Your task to perform on an android device: toggle improve location accuracy Image 0: 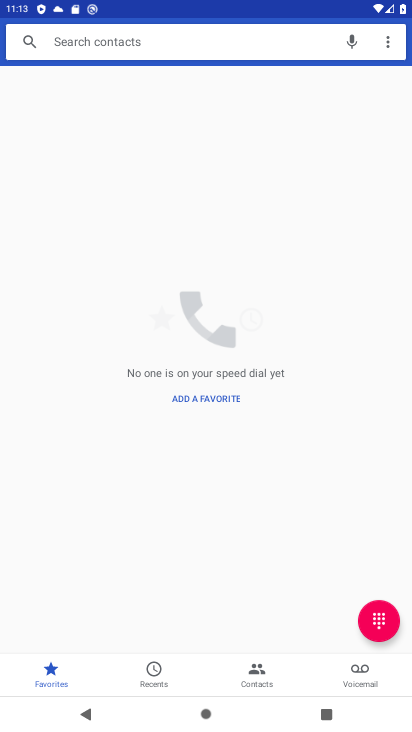
Step 0: press home button
Your task to perform on an android device: toggle improve location accuracy Image 1: 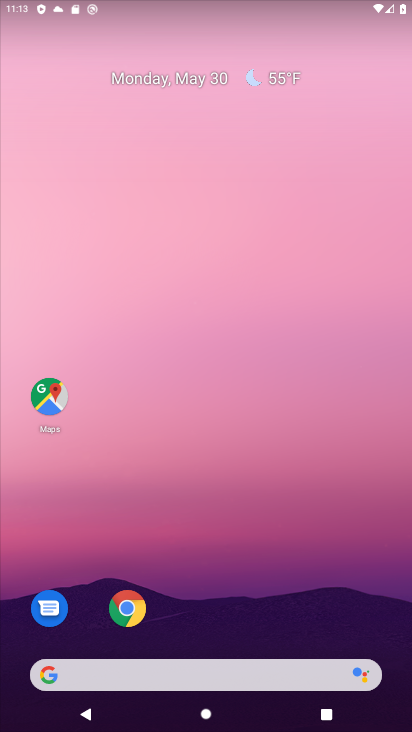
Step 1: drag from (279, 618) to (270, 5)
Your task to perform on an android device: toggle improve location accuracy Image 2: 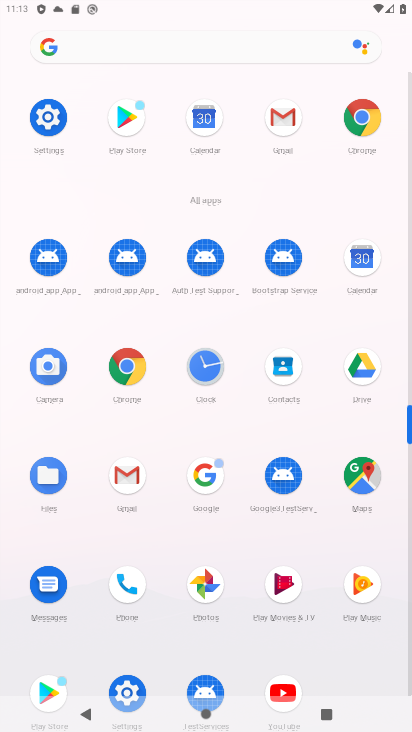
Step 2: click (45, 119)
Your task to perform on an android device: toggle improve location accuracy Image 3: 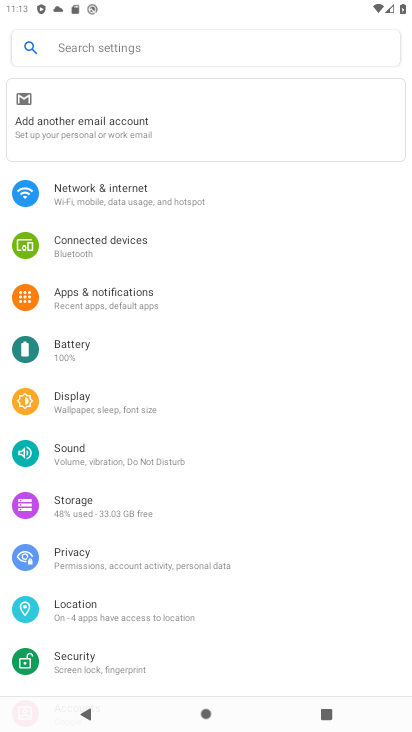
Step 3: click (91, 610)
Your task to perform on an android device: toggle improve location accuracy Image 4: 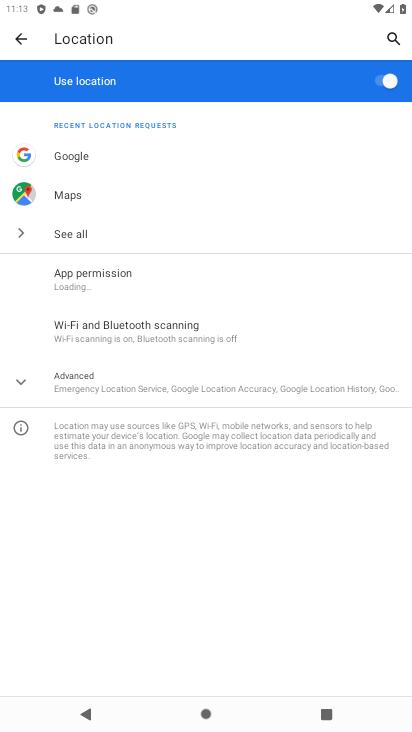
Step 4: click (20, 384)
Your task to perform on an android device: toggle improve location accuracy Image 5: 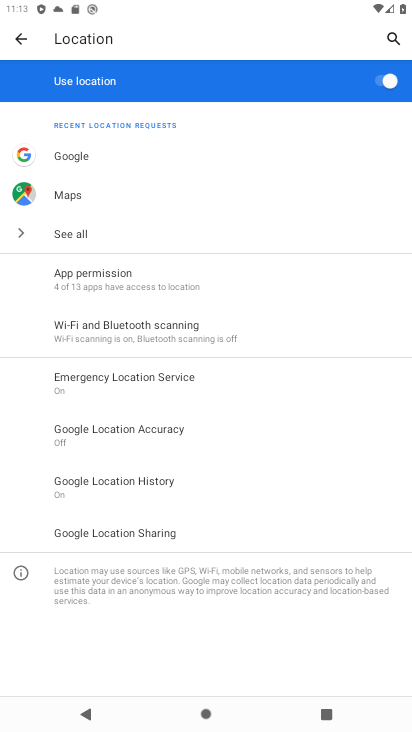
Step 5: click (87, 429)
Your task to perform on an android device: toggle improve location accuracy Image 6: 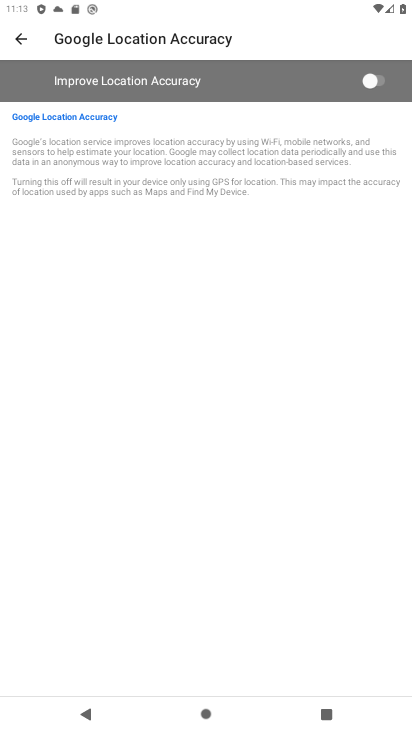
Step 6: click (374, 77)
Your task to perform on an android device: toggle improve location accuracy Image 7: 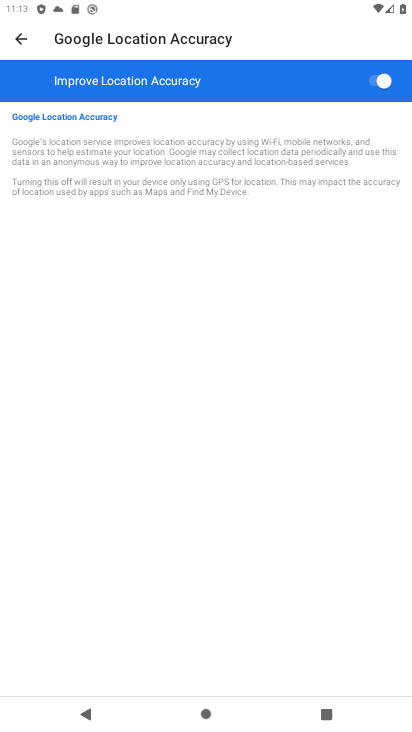
Step 7: task complete